Your task to perform on an android device: remove spam from my inbox in the gmail app Image 0: 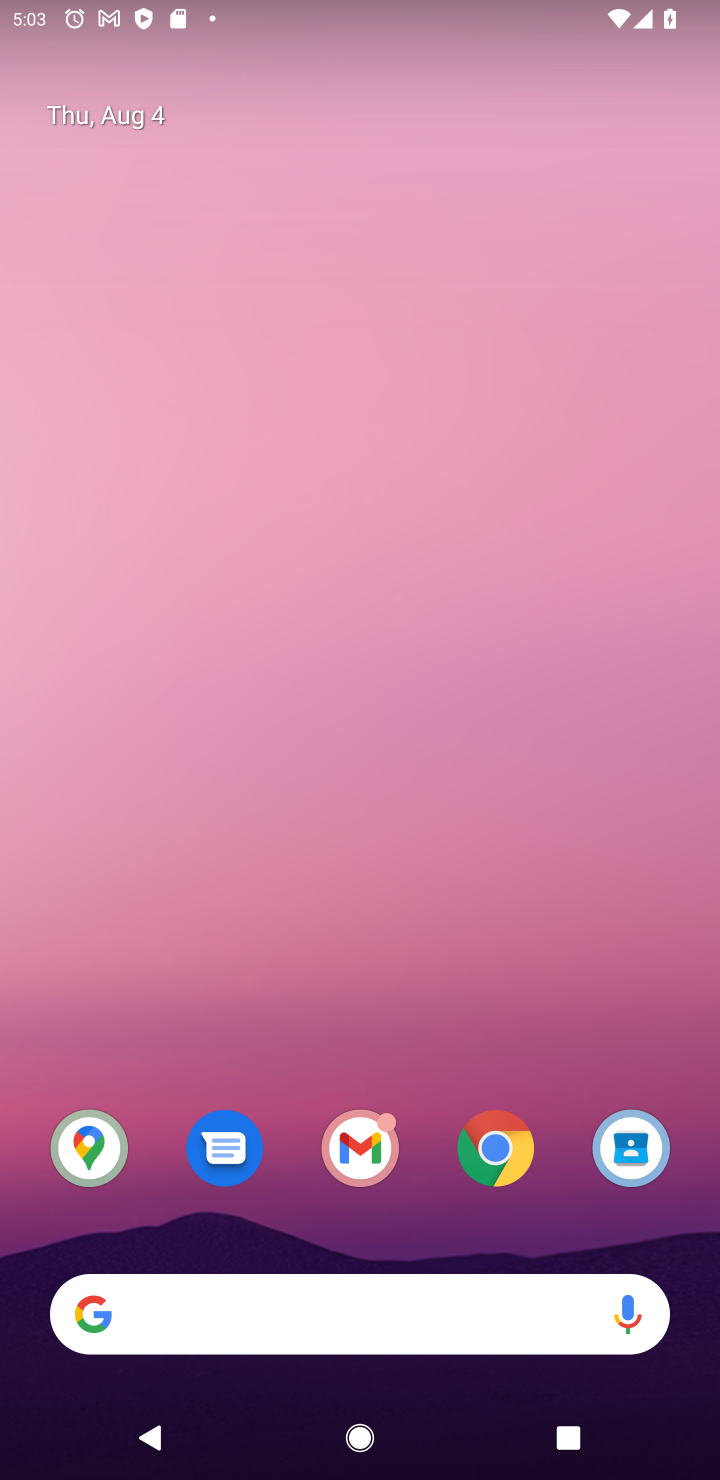
Step 0: click (356, 1147)
Your task to perform on an android device: remove spam from my inbox in the gmail app Image 1: 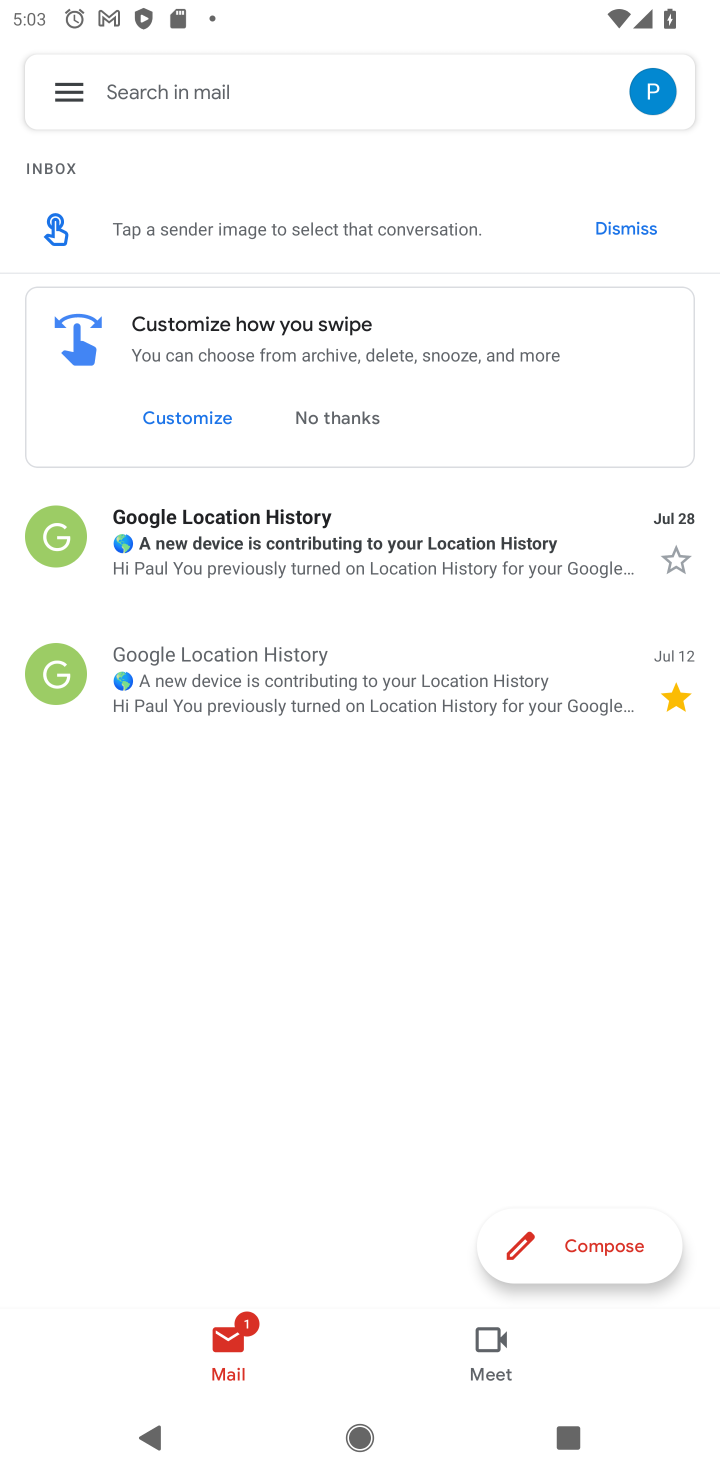
Step 1: click (56, 85)
Your task to perform on an android device: remove spam from my inbox in the gmail app Image 2: 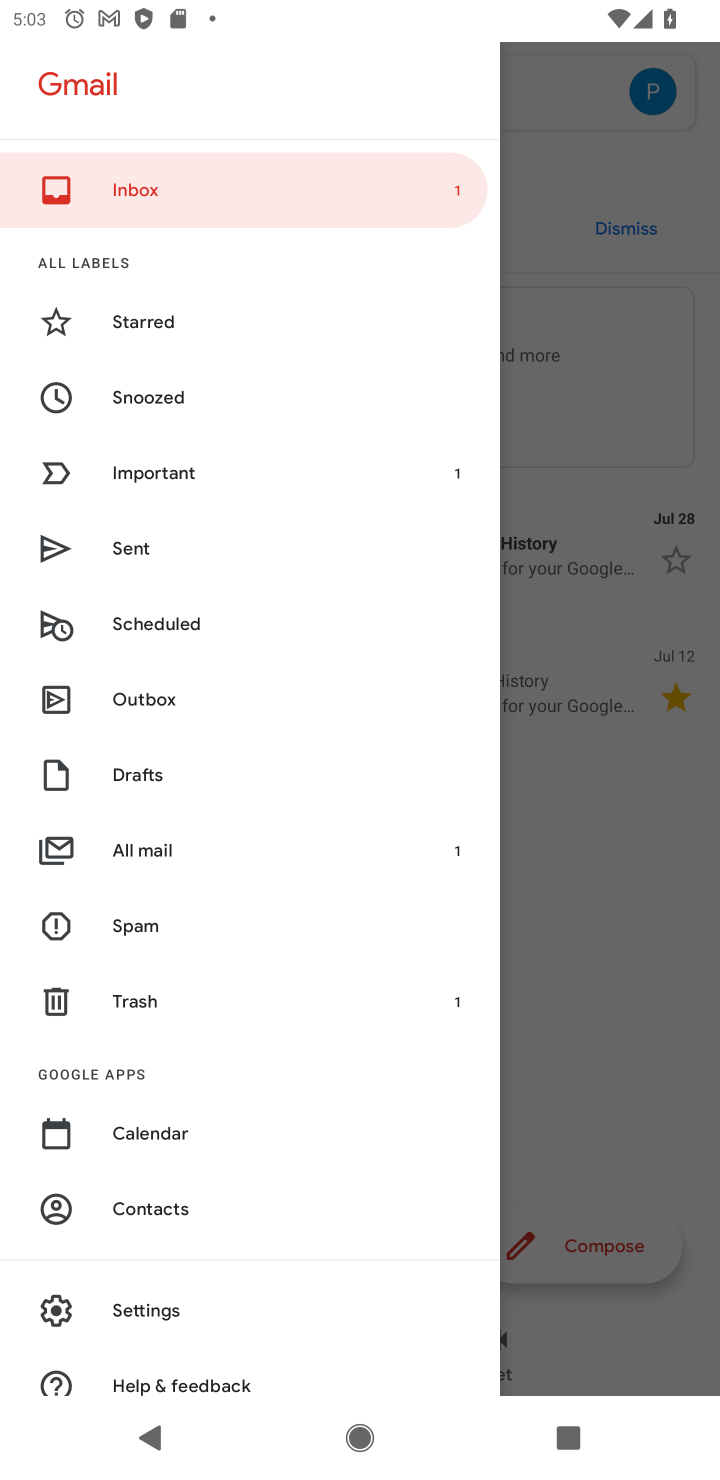
Step 2: click (123, 920)
Your task to perform on an android device: remove spam from my inbox in the gmail app Image 3: 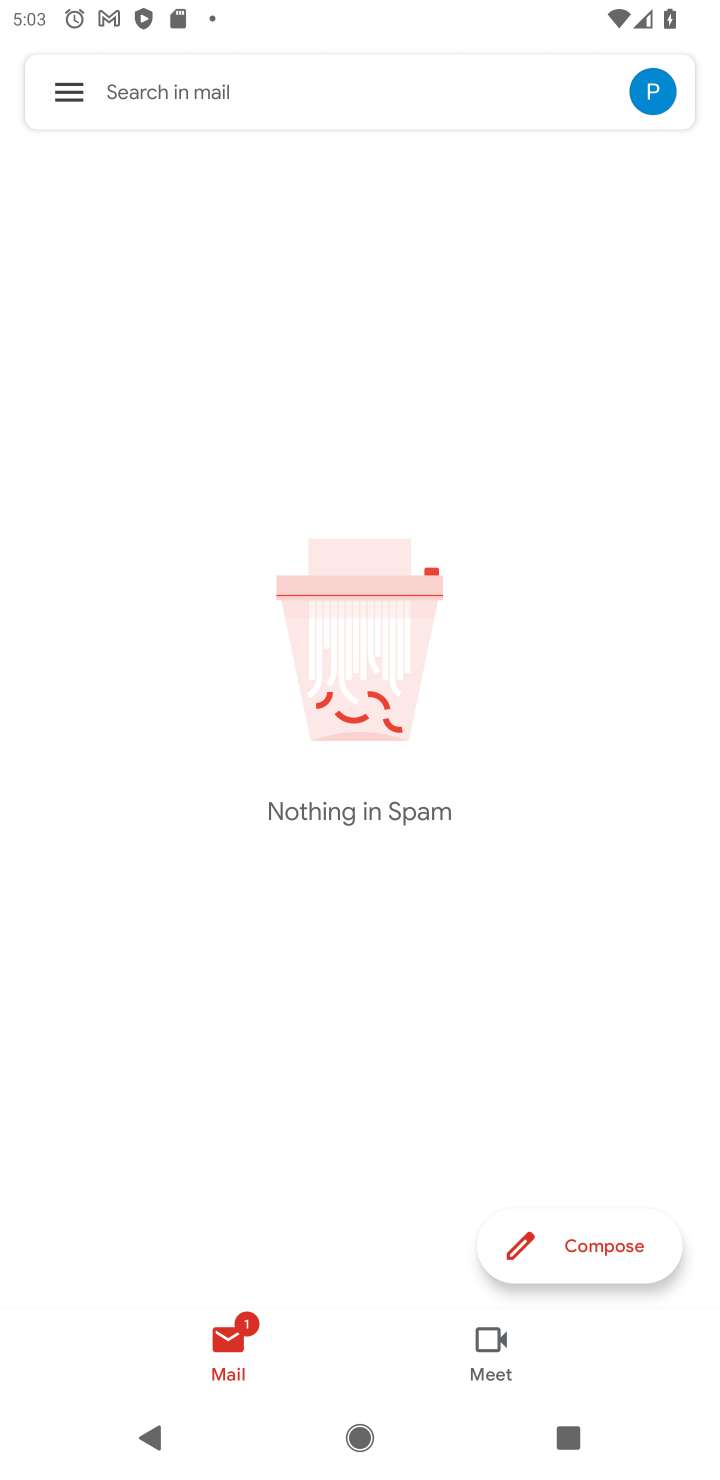
Step 3: task complete